Your task to perform on an android device: Turn off the flashlight Image 0: 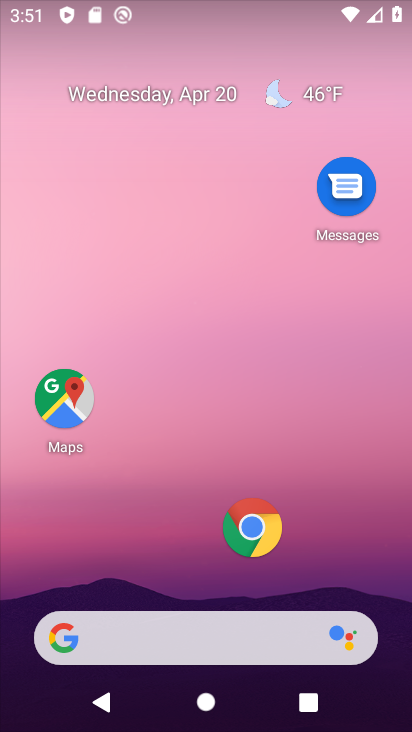
Step 0: drag from (186, 4) to (131, 589)
Your task to perform on an android device: Turn off the flashlight Image 1: 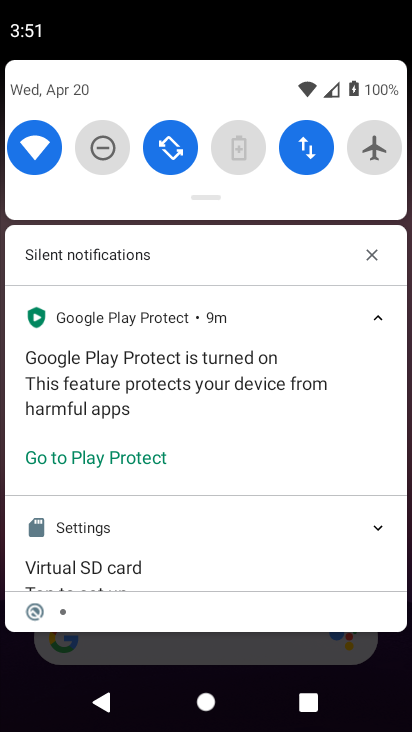
Step 1: task complete